Your task to perform on an android device: Open the stopwatch Image 0: 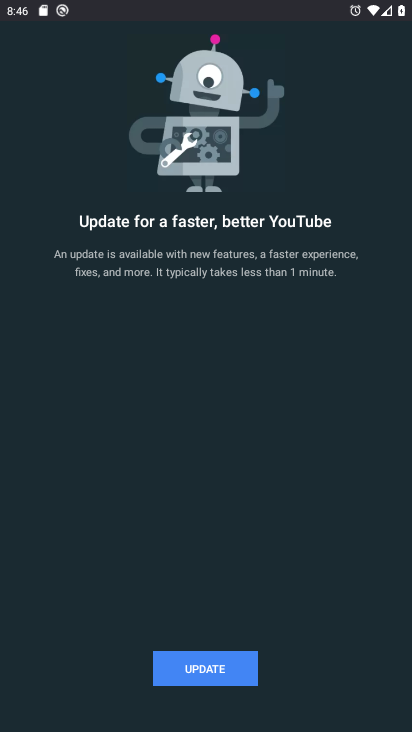
Step 0: press home button
Your task to perform on an android device: Open the stopwatch Image 1: 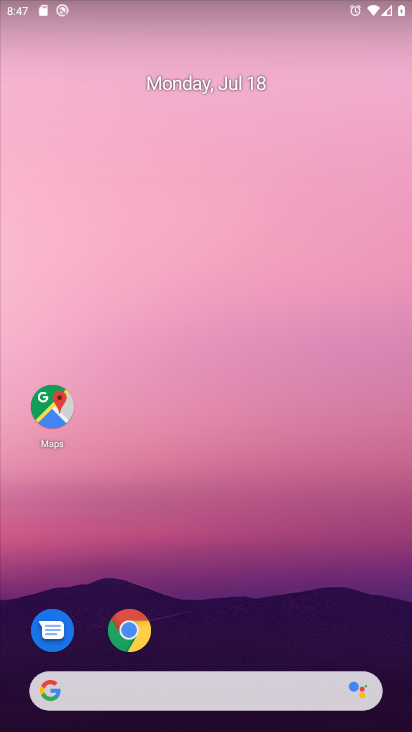
Step 1: drag from (230, 635) to (235, 260)
Your task to perform on an android device: Open the stopwatch Image 2: 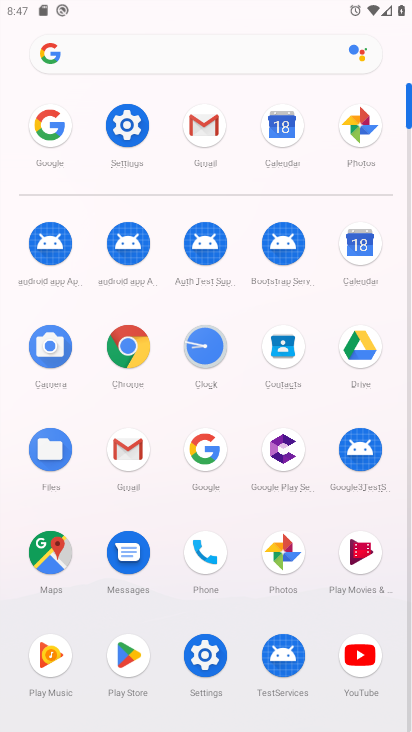
Step 2: click (220, 360)
Your task to perform on an android device: Open the stopwatch Image 3: 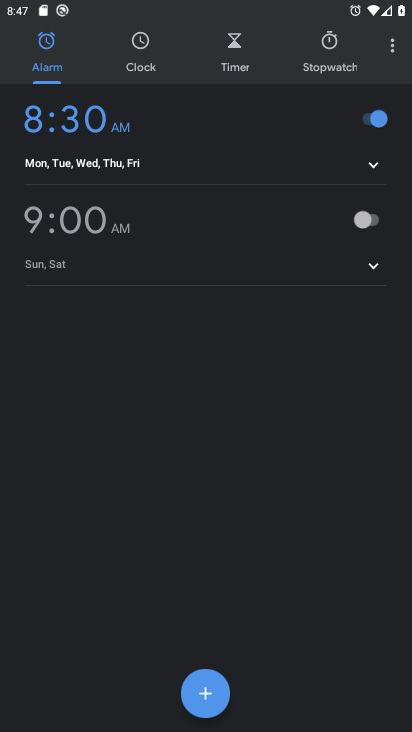
Step 3: click (330, 55)
Your task to perform on an android device: Open the stopwatch Image 4: 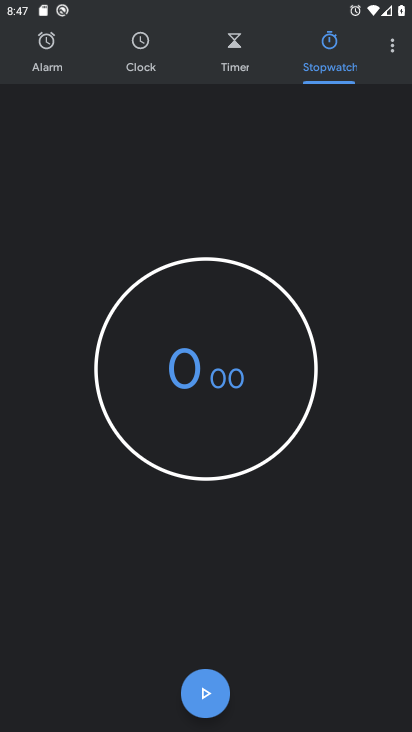
Step 4: task complete